Your task to perform on an android device: Open Google Chrome Image 0: 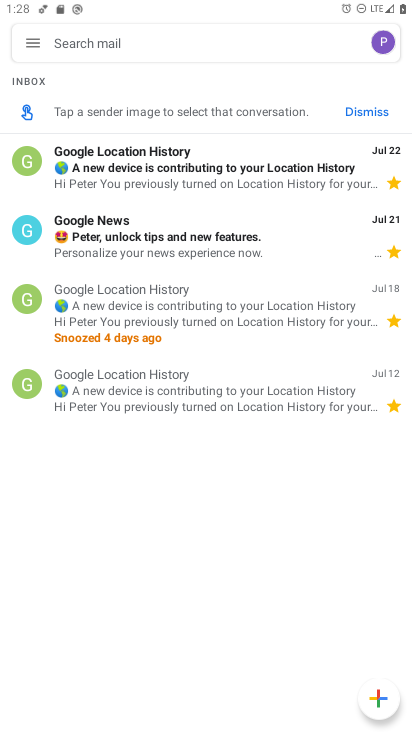
Step 0: press home button
Your task to perform on an android device: Open Google Chrome Image 1: 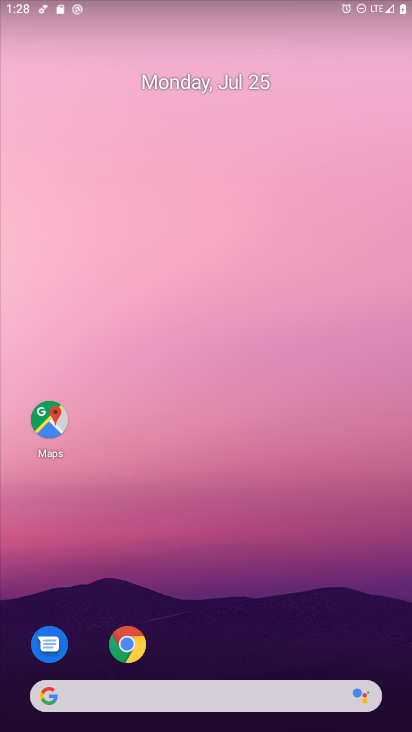
Step 1: click (125, 650)
Your task to perform on an android device: Open Google Chrome Image 2: 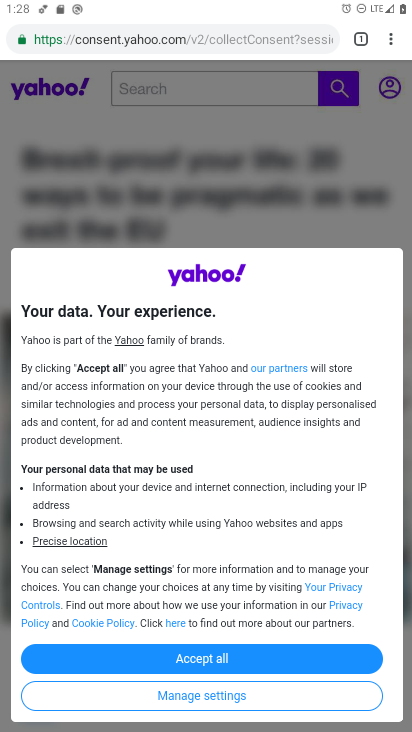
Step 2: task complete